Your task to perform on an android device: Open calendar and show me the first week of next month Image 0: 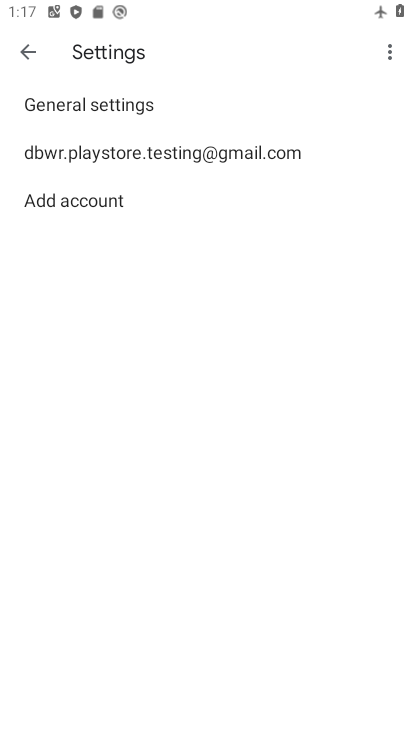
Step 0: press home button
Your task to perform on an android device: Open calendar and show me the first week of next month Image 1: 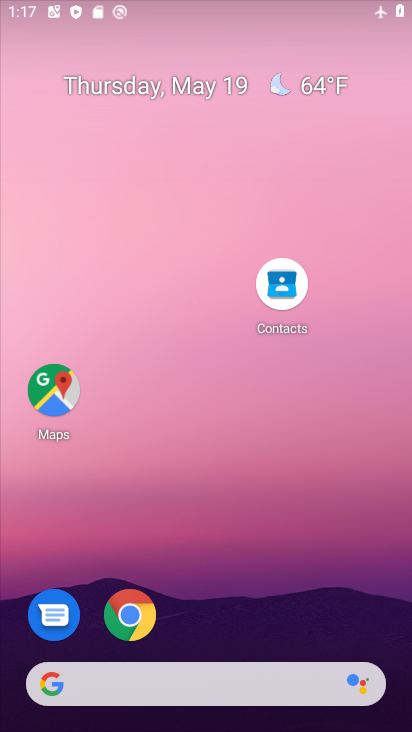
Step 1: drag from (187, 619) to (174, 140)
Your task to perform on an android device: Open calendar and show me the first week of next month Image 2: 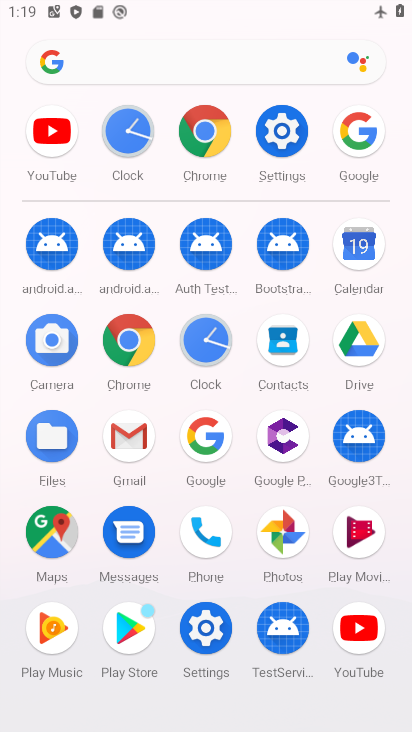
Step 2: click (361, 264)
Your task to perform on an android device: Open calendar and show me the first week of next month Image 3: 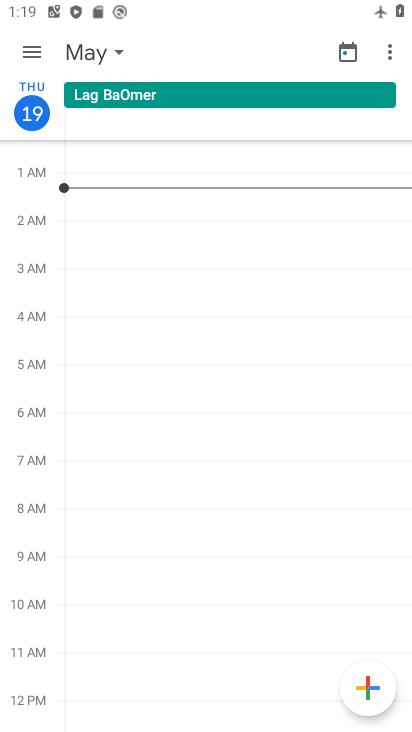
Step 3: click (108, 56)
Your task to perform on an android device: Open calendar and show me the first week of next month Image 4: 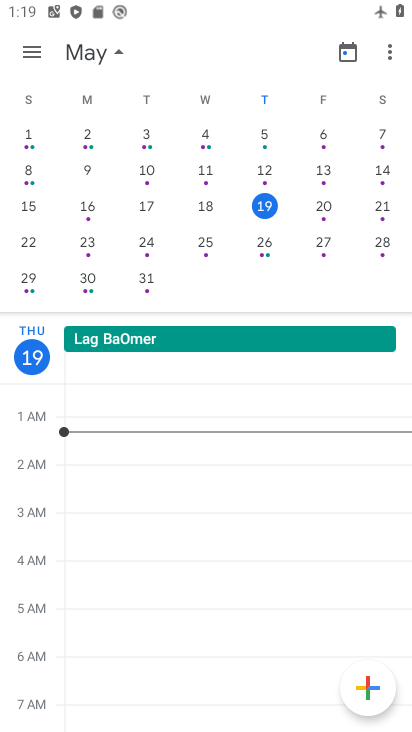
Step 4: drag from (353, 214) to (1, 167)
Your task to perform on an android device: Open calendar and show me the first week of next month Image 5: 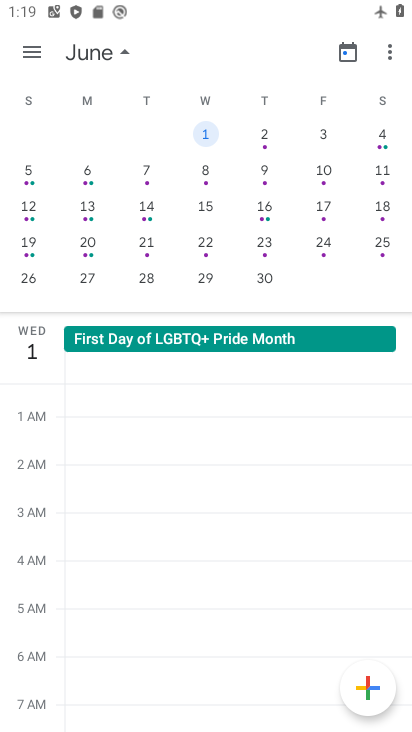
Step 5: click (28, 179)
Your task to perform on an android device: Open calendar and show me the first week of next month Image 6: 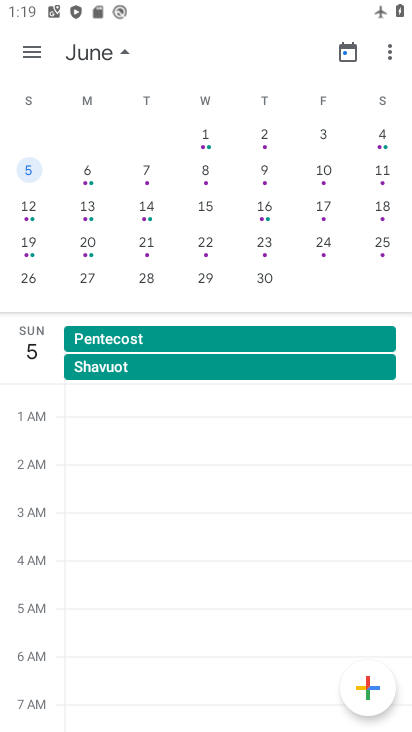
Step 6: task complete